Your task to perform on an android device: Go to internet settings Image 0: 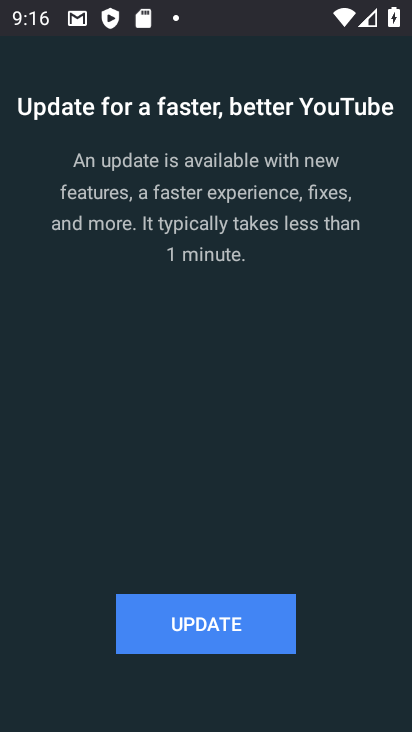
Step 0: press home button
Your task to perform on an android device: Go to internet settings Image 1: 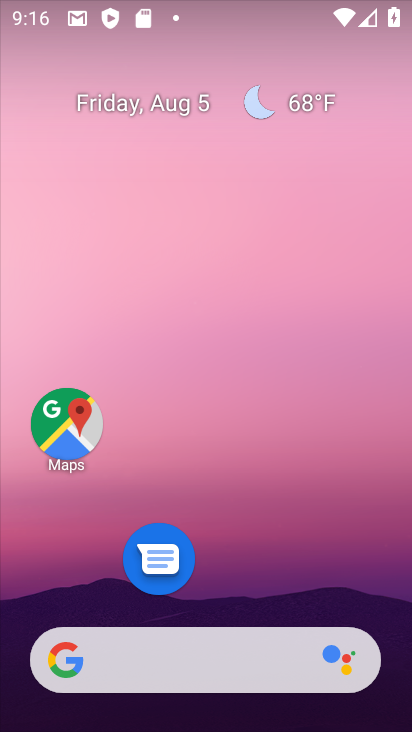
Step 1: drag from (296, 555) to (288, 169)
Your task to perform on an android device: Go to internet settings Image 2: 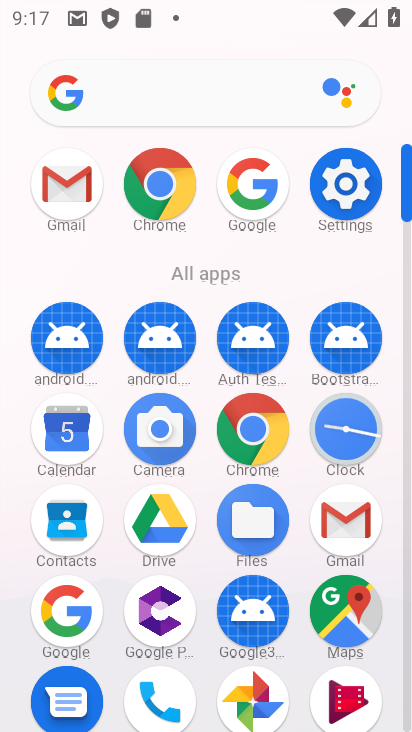
Step 2: click (367, 192)
Your task to perform on an android device: Go to internet settings Image 3: 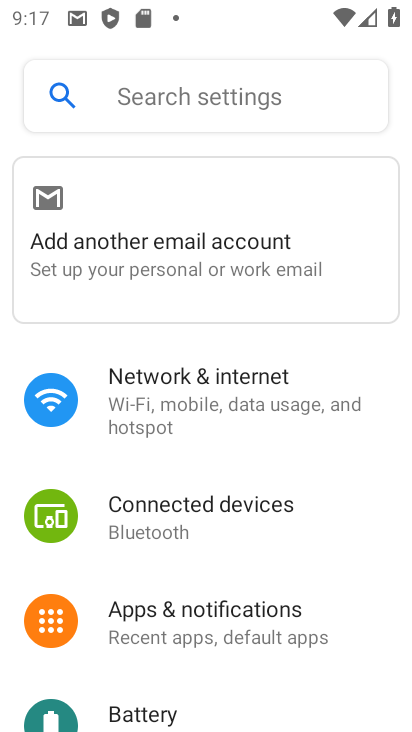
Step 3: click (240, 408)
Your task to perform on an android device: Go to internet settings Image 4: 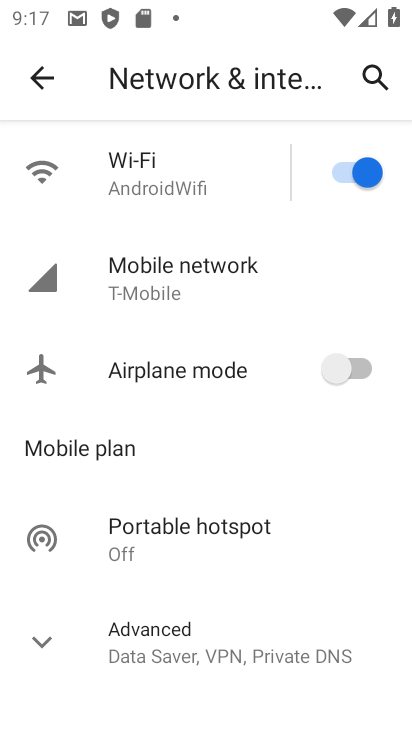
Step 4: click (193, 267)
Your task to perform on an android device: Go to internet settings Image 5: 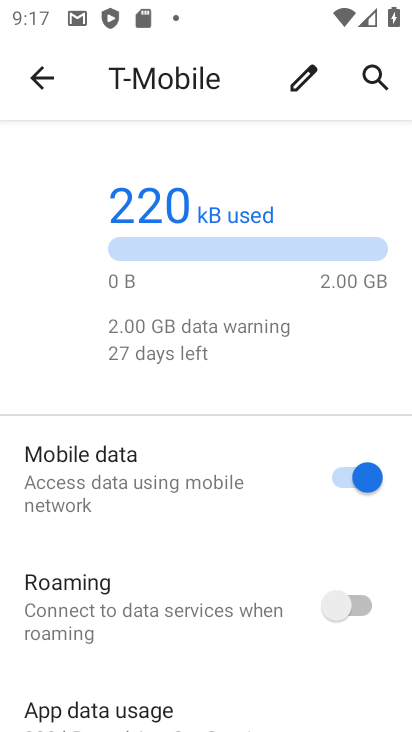
Step 5: task complete